Your task to perform on an android device: Go to privacy settings Image 0: 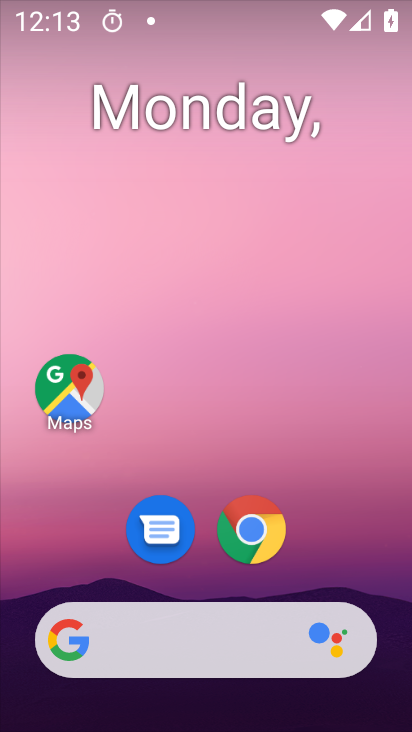
Step 0: drag from (177, 616) to (103, 9)
Your task to perform on an android device: Go to privacy settings Image 1: 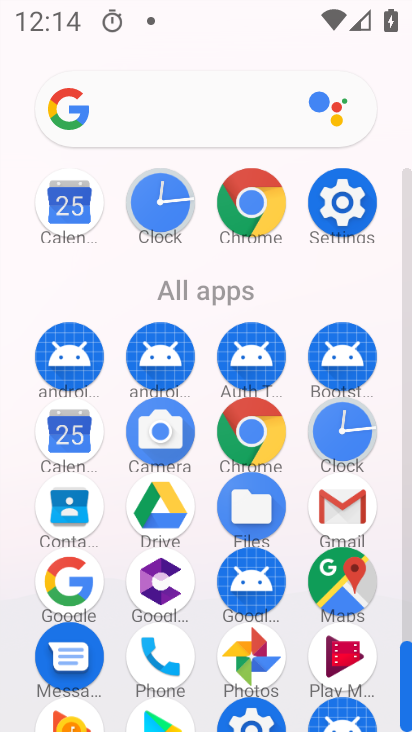
Step 1: click (334, 228)
Your task to perform on an android device: Go to privacy settings Image 2: 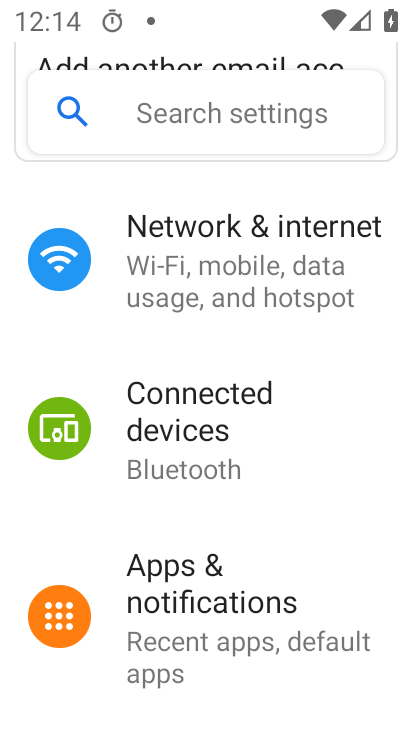
Step 2: drag from (207, 540) to (155, 44)
Your task to perform on an android device: Go to privacy settings Image 3: 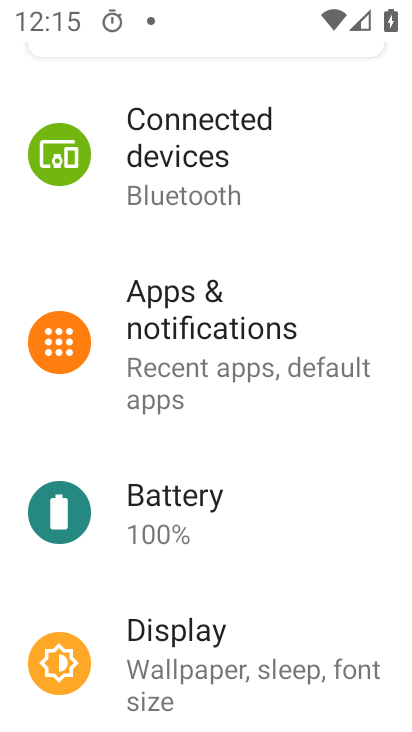
Step 3: drag from (167, 665) to (160, 21)
Your task to perform on an android device: Go to privacy settings Image 4: 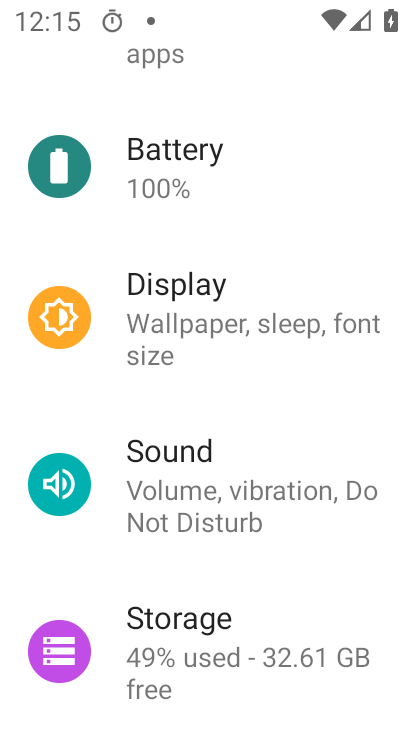
Step 4: drag from (216, 648) to (207, 30)
Your task to perform on an android device: Go to privacy settings Image 5: 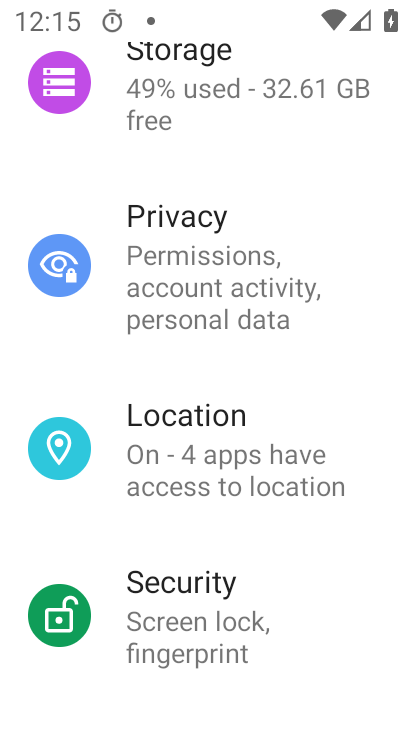
Step 5: click (211, 308)
Your task to perform on an android device: Go to privacy settings Image 6: 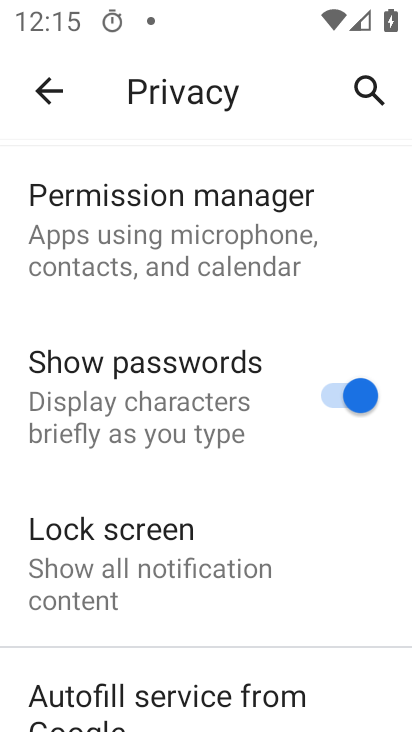
Step 6: task complete